Your task to perform on an android device: Open Google Chrome and click the shortcut for Amazon.com Image 0: 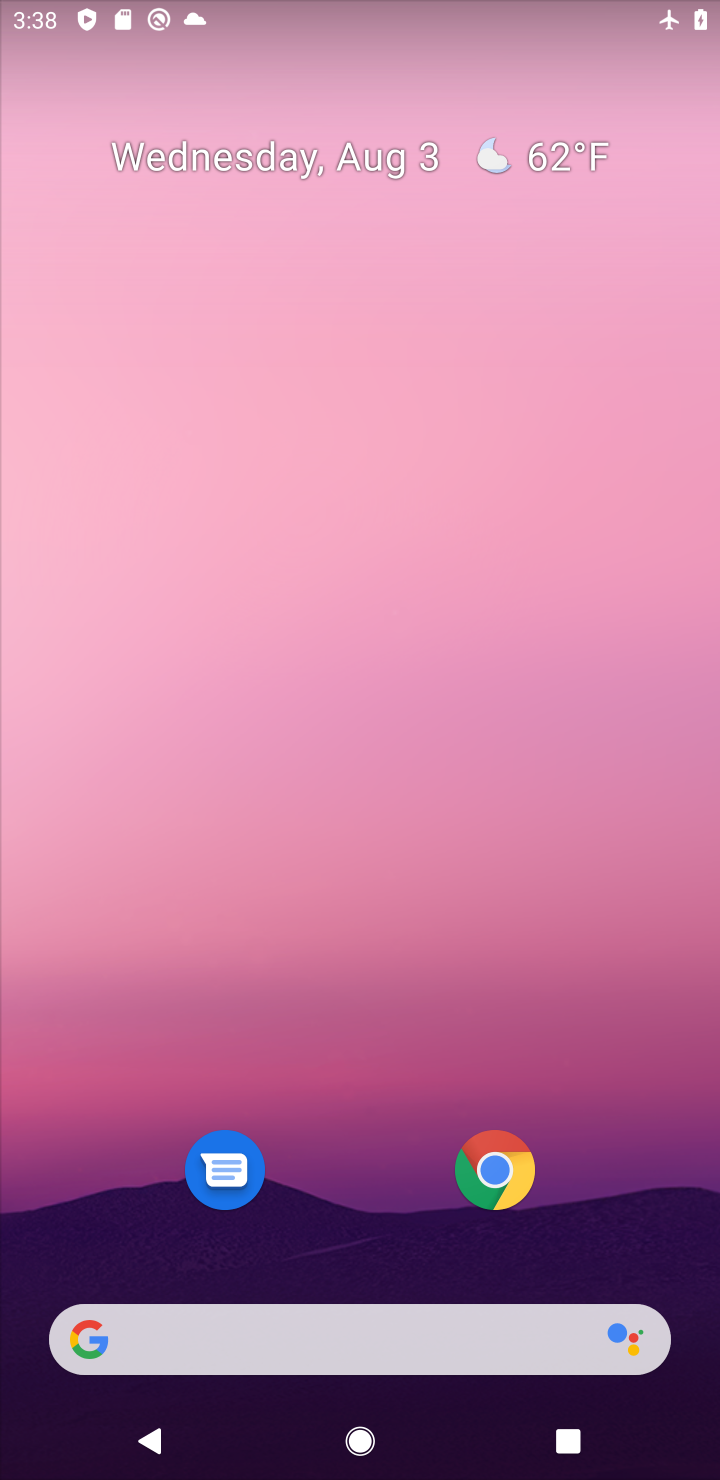
Step 0: click (495, 1176)
Your task to perform on an android device: Open Google Chrome and click the shortcut for Amazon.com Image 1: 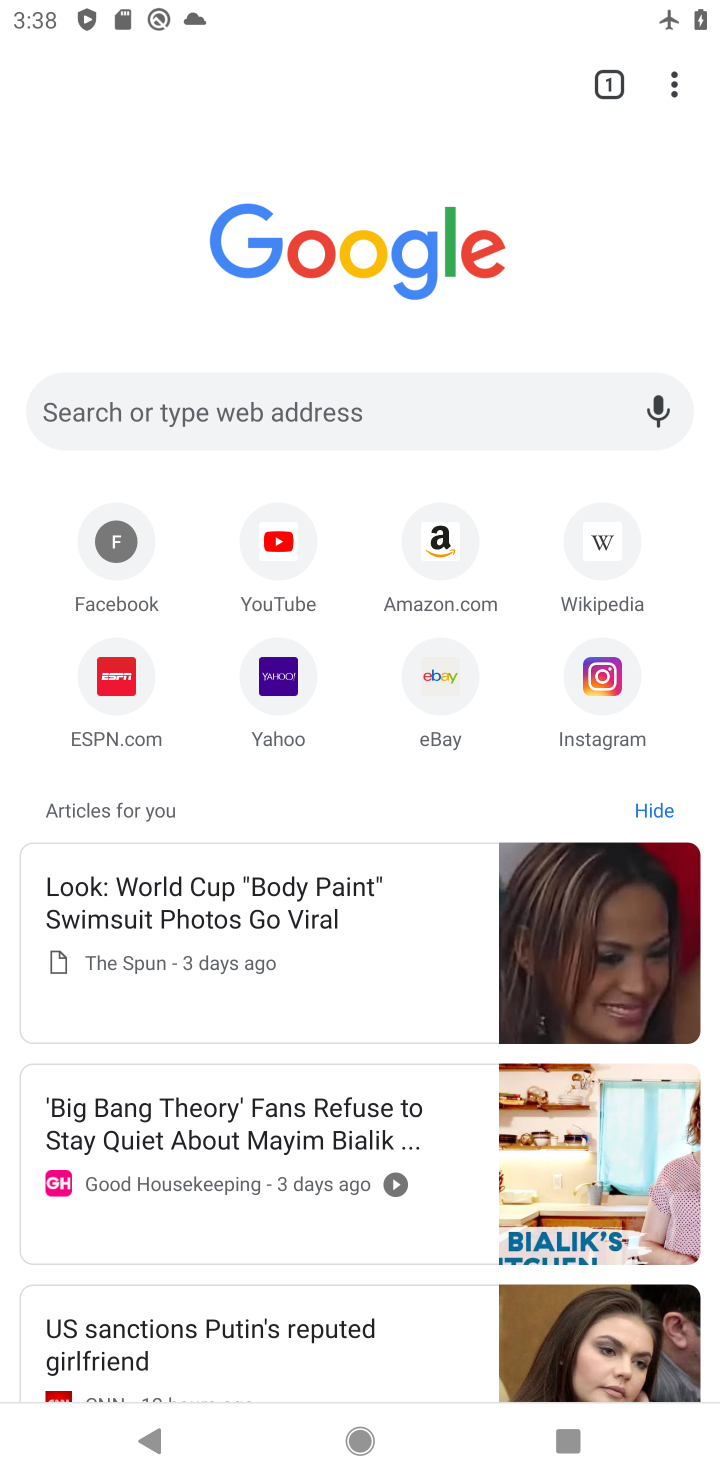
Step 1: click (448, 574)
Your task to perform on an android device: Open Google Chrome and click the shortcut for Amazon.com Image 2: 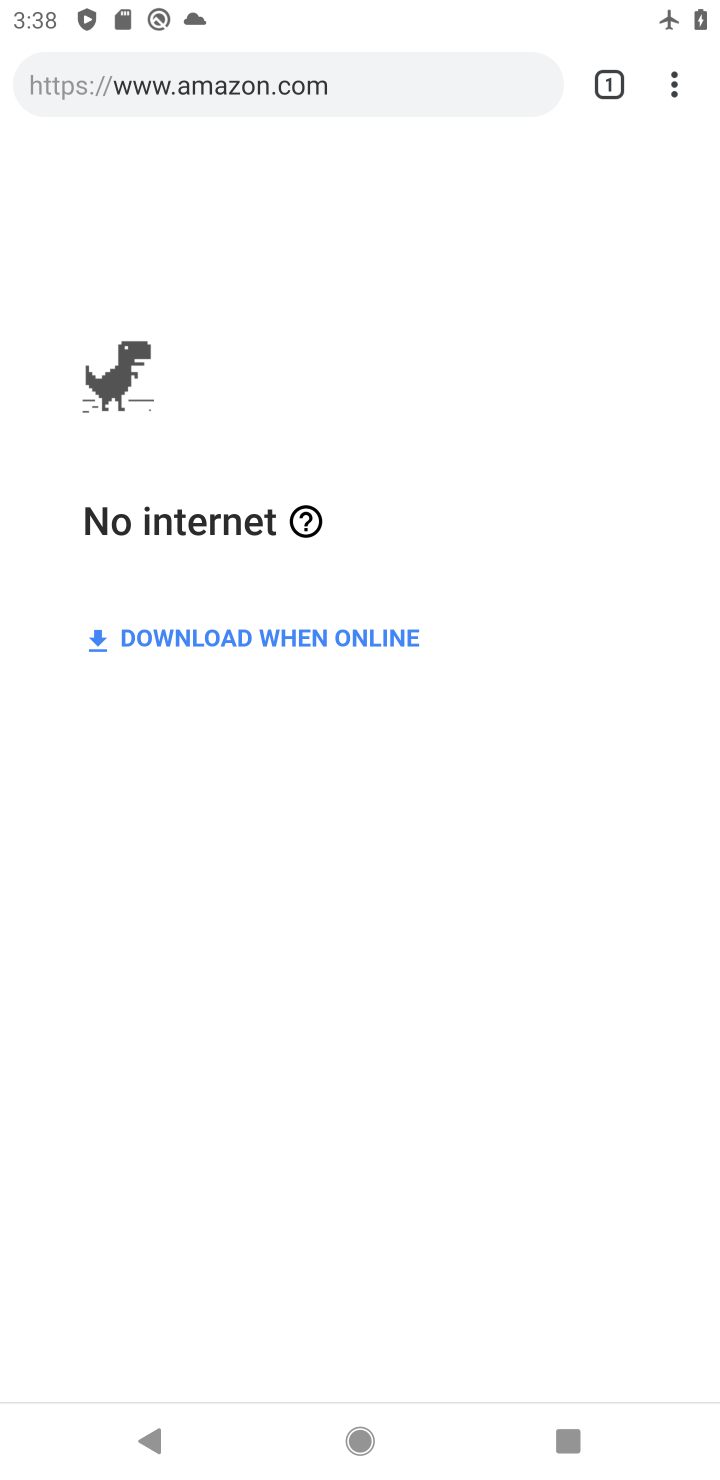
Step 2: press back button
Your task to perform on an android device: Open Google Chrome and click the shortcut for Amazon.com Image 3: 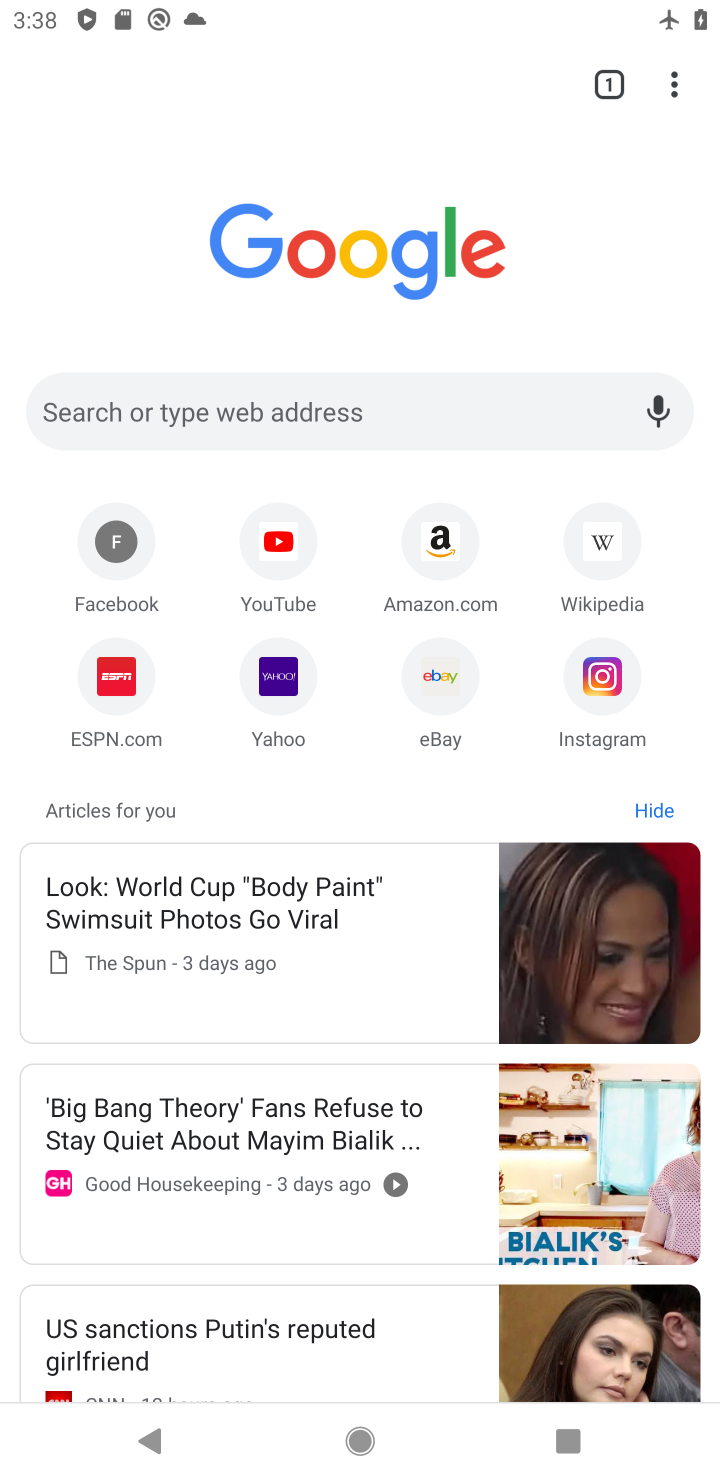
Step 3: press back button
Your task to perform on an android device: Open Google Chrome and click the shortcut for Amazon.com Image 4: 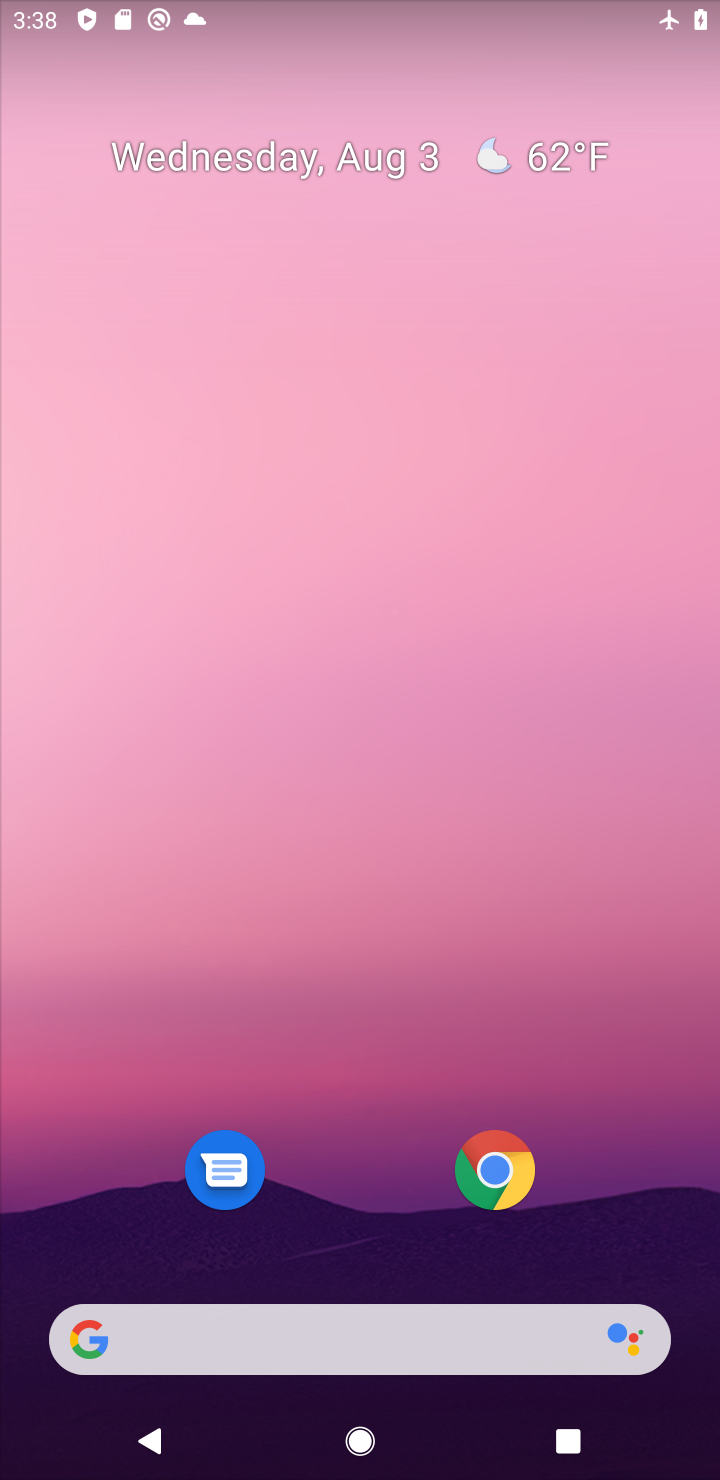
Step 4: press back button
Your task to perform on an android device: Open Google Chrome and click the shortcut for Amazon.com Image 5: 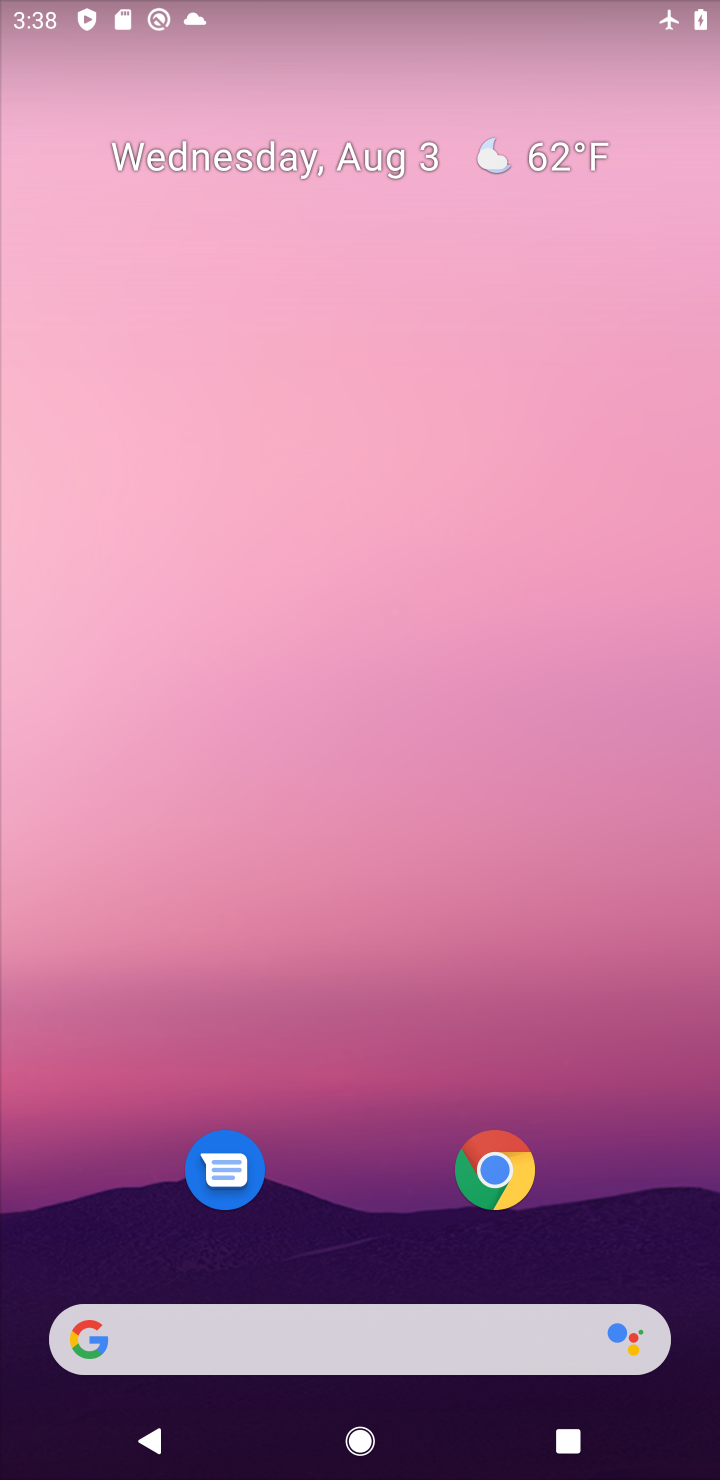
Step 5: drag from (348, 1245) to (331, 383)
Your task to perform on an android device: Open Google Chrome and click the shortcut for Amazon.com Image 6: 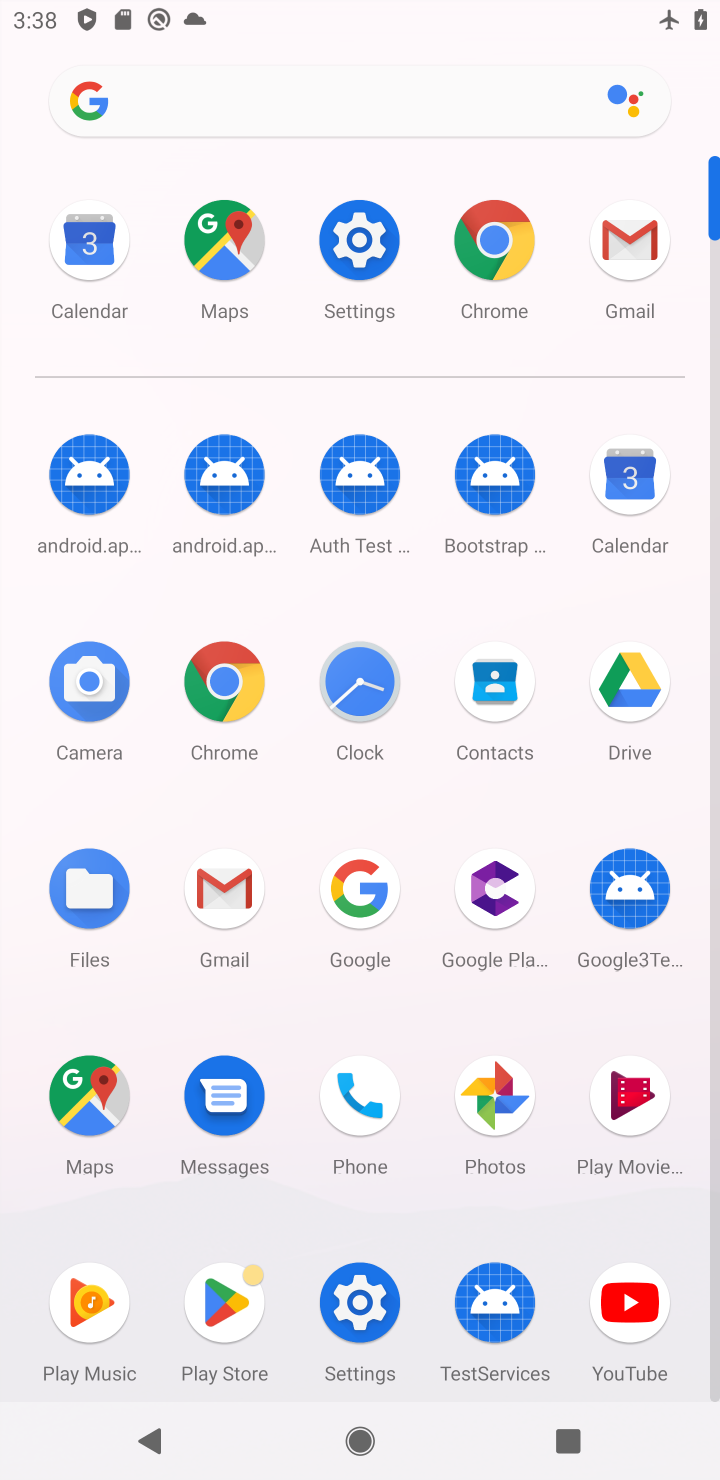
Step 6: click (349, 246)
Your task to perform on an android device: Open Google Chrome and click the shortcut for Amazon.com Image 7: 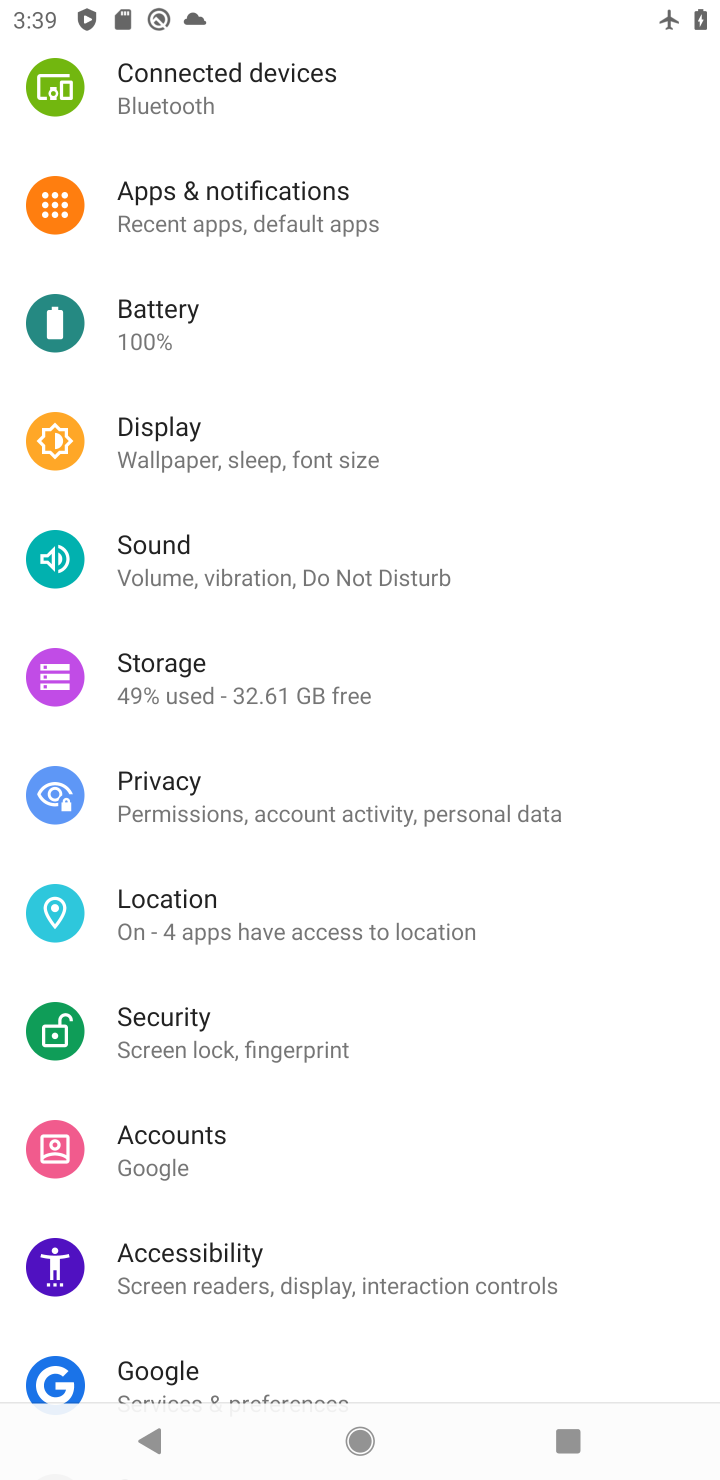
Step 7: press back button
Your task to perform on an android device: Open Google Chrome and click the shortcut for Amazon.com Image 8: 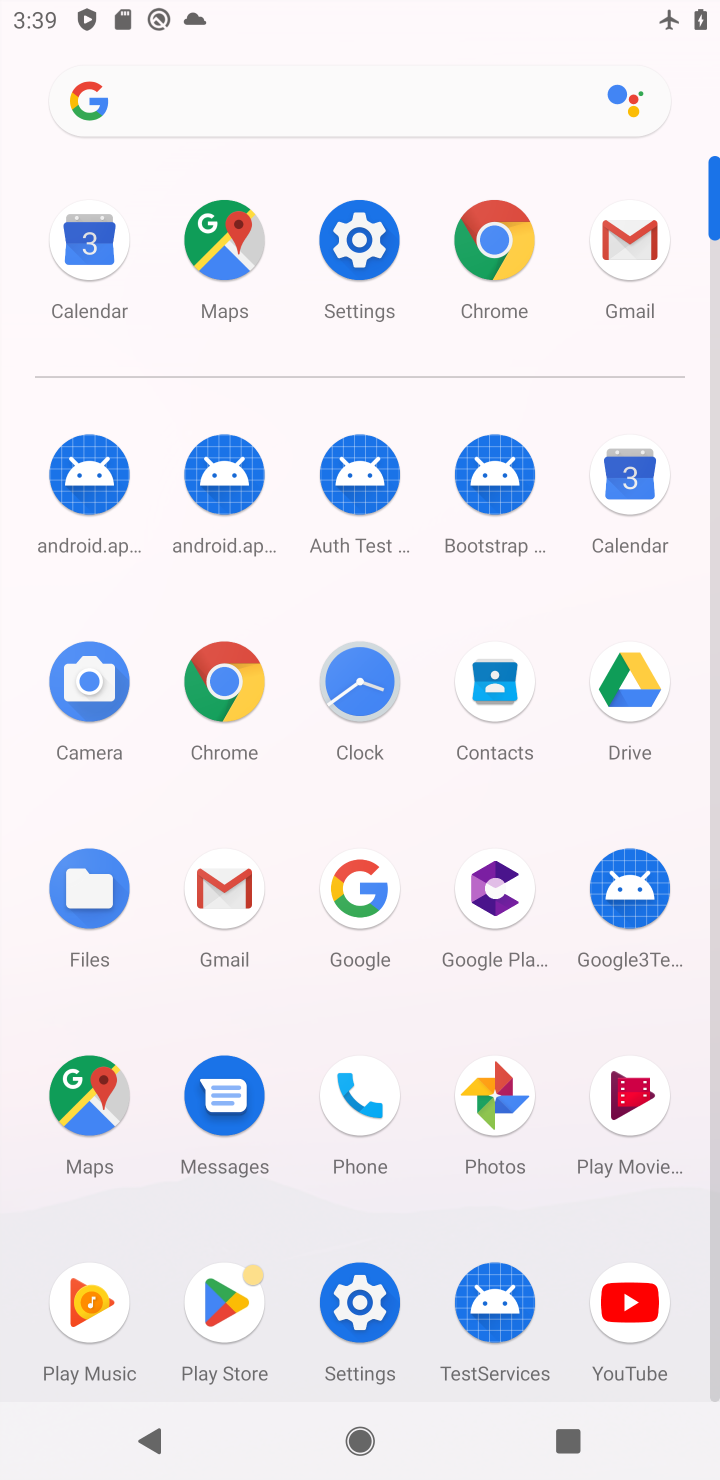
Step 8: click (485, 246)
Your task to perform on an android device: Open Google Chrome and click the shortcut for Amazon.com Image 9: 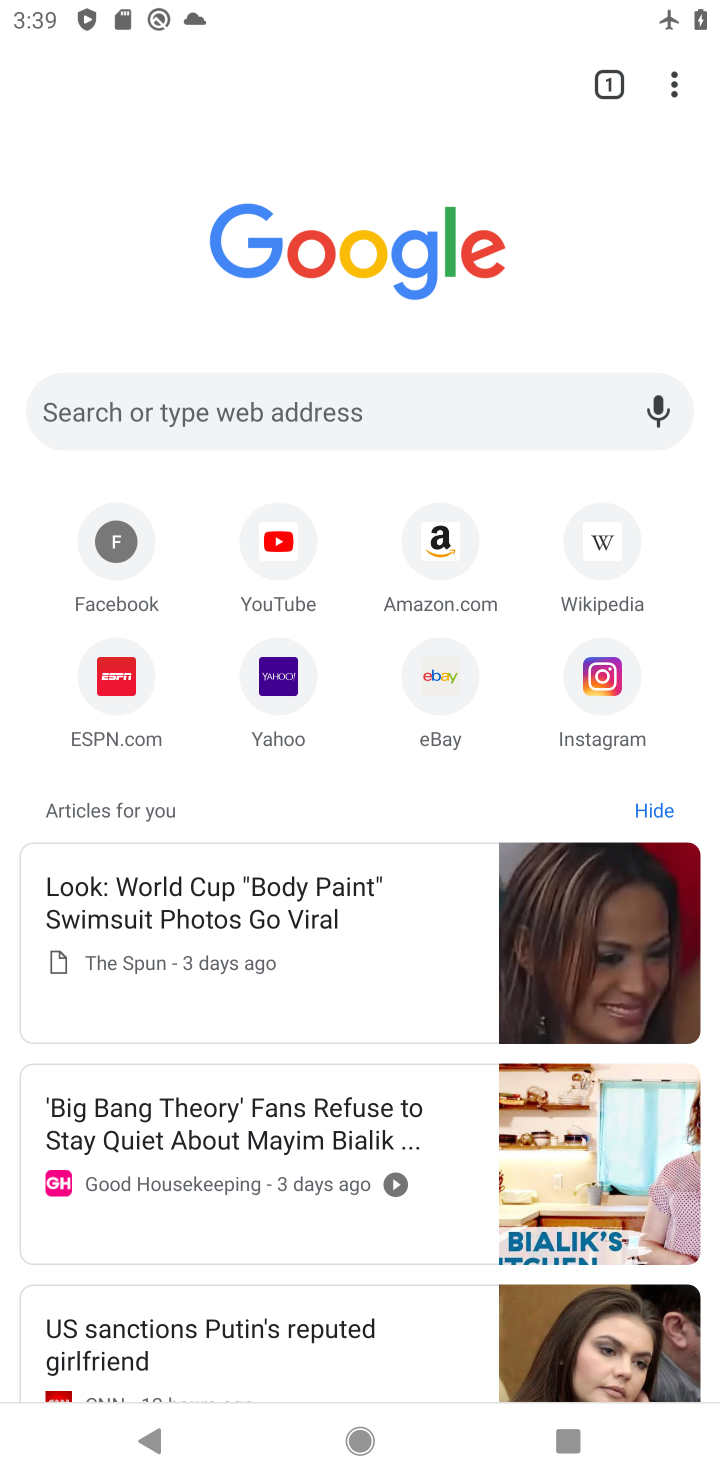
Step 9: click (435, 530)
Your task to perform on an android device: Open Google Chrome and click the shortcut for Amazon.com Image 10: 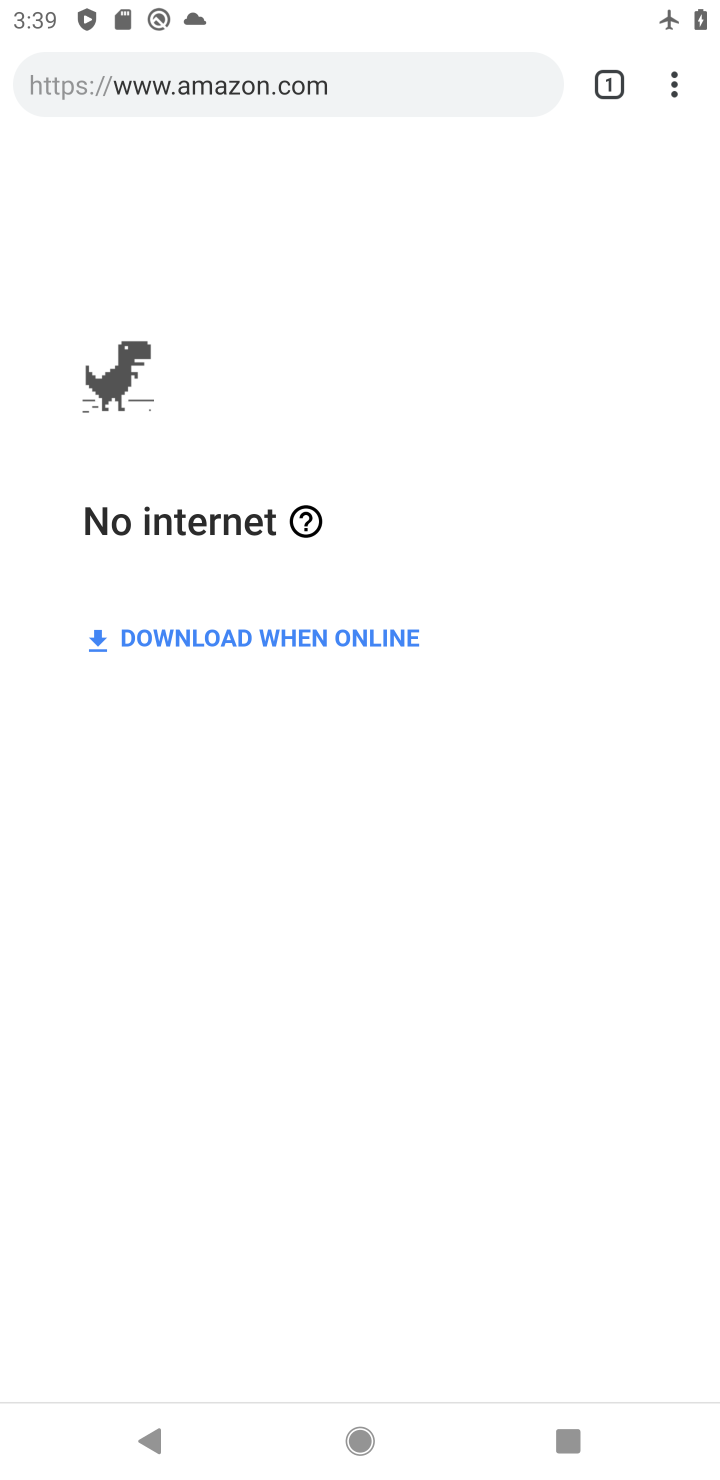
Step 10: press back button
Your task to perform on an android device: Open Google Chrome and click the shortcut for Amazon.com Image 11: 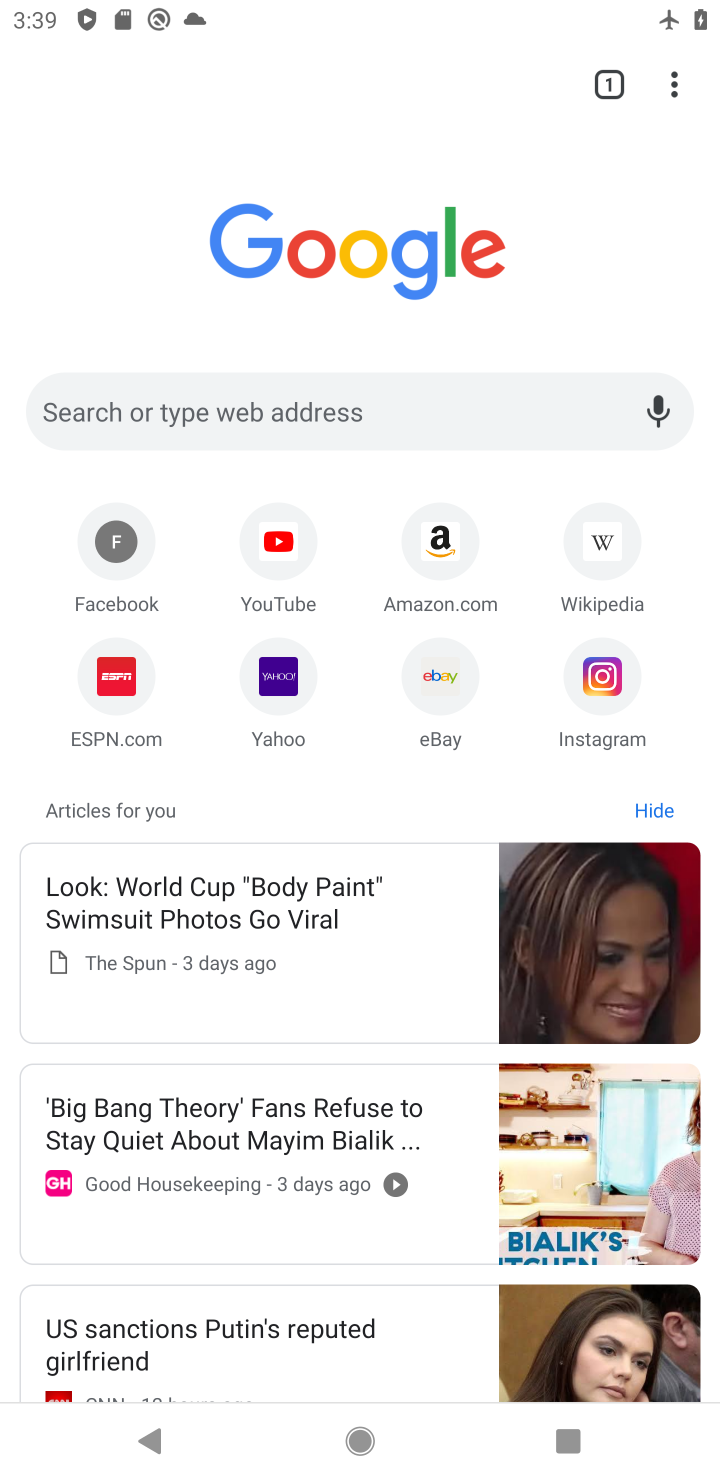
Step 11: press back button
Your task to perform on an android device: Open Google Chrome and click the shortcut for Amazon.com Image 12: 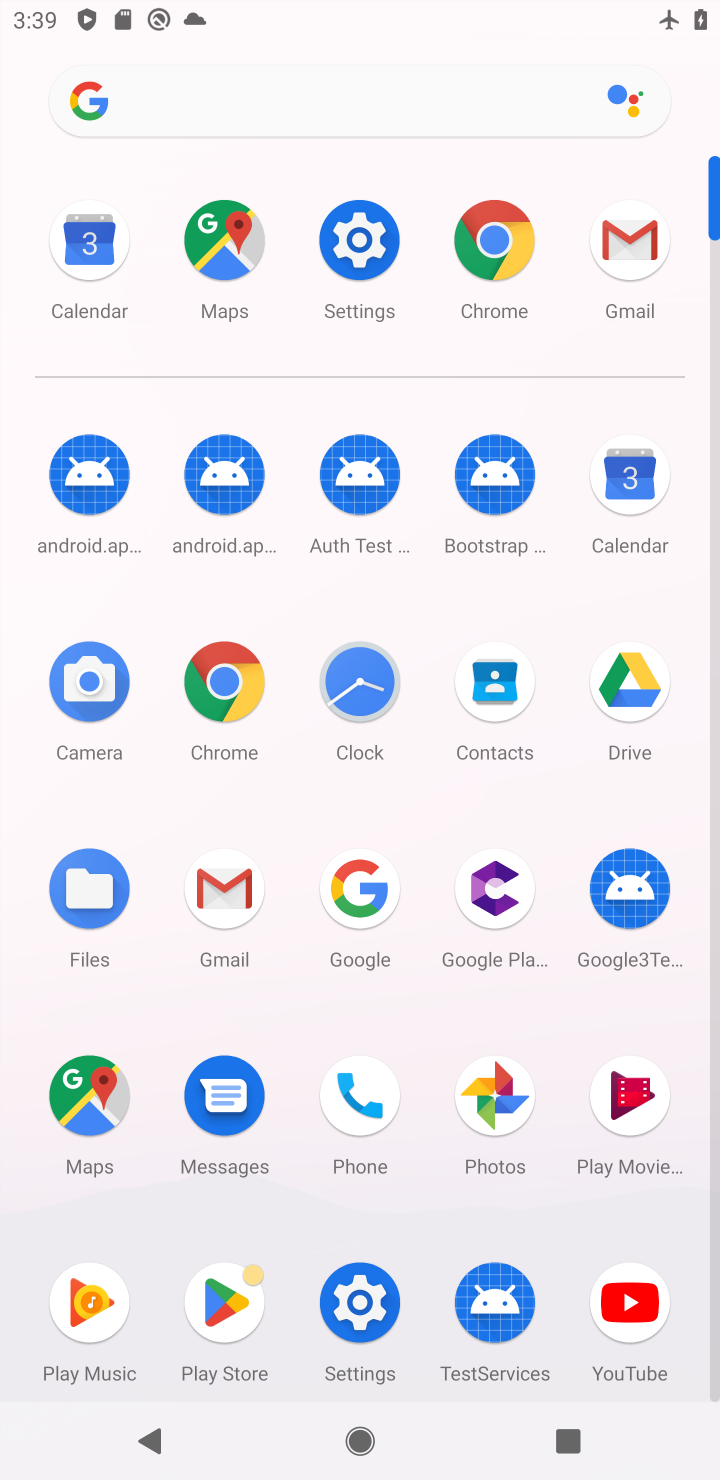
Step 12: click (352, 241)
Your task to perform on an android device: Open Google Chrome and click the shortcut for Amazon.com Image 13: 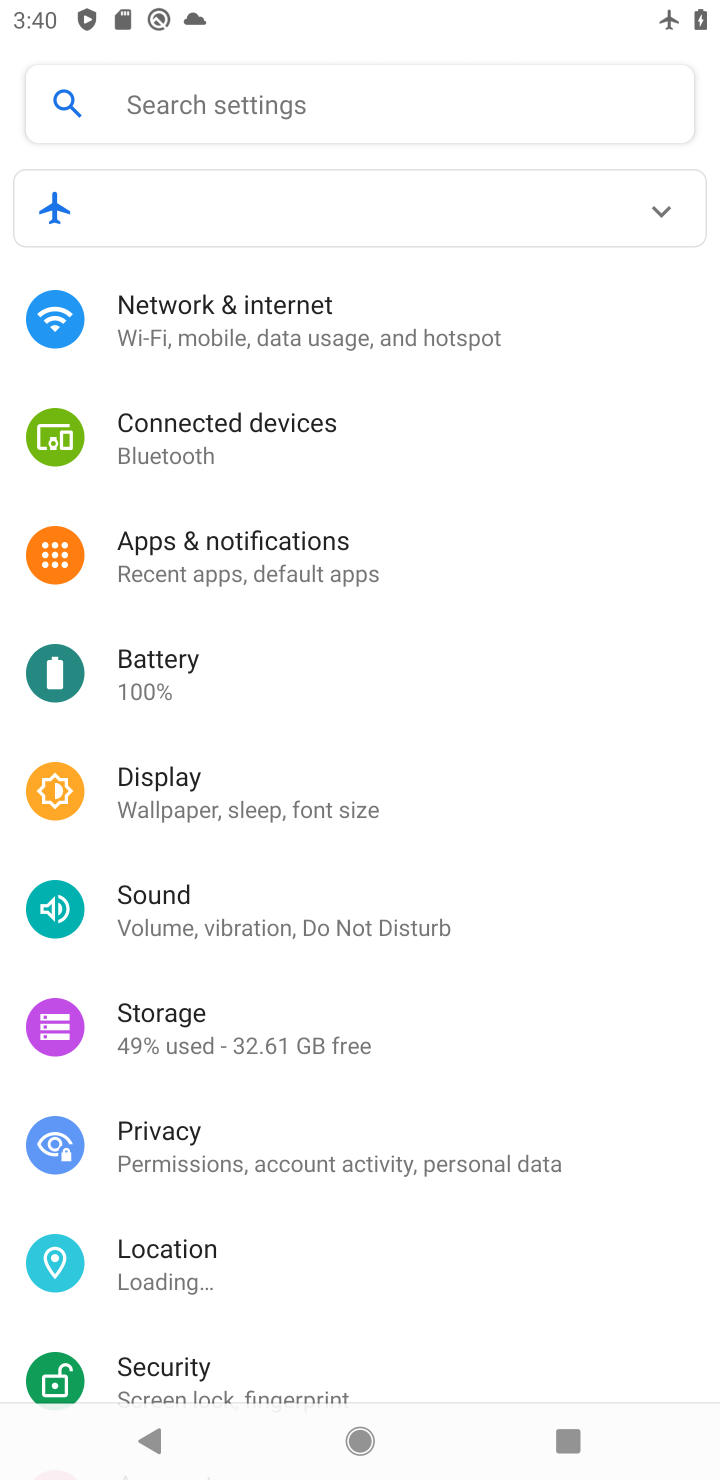
Step 13: click (664, 205)
Your task to perform on an android device: Open Google Chrome and click the shortcut for Amazon.com Image 14: 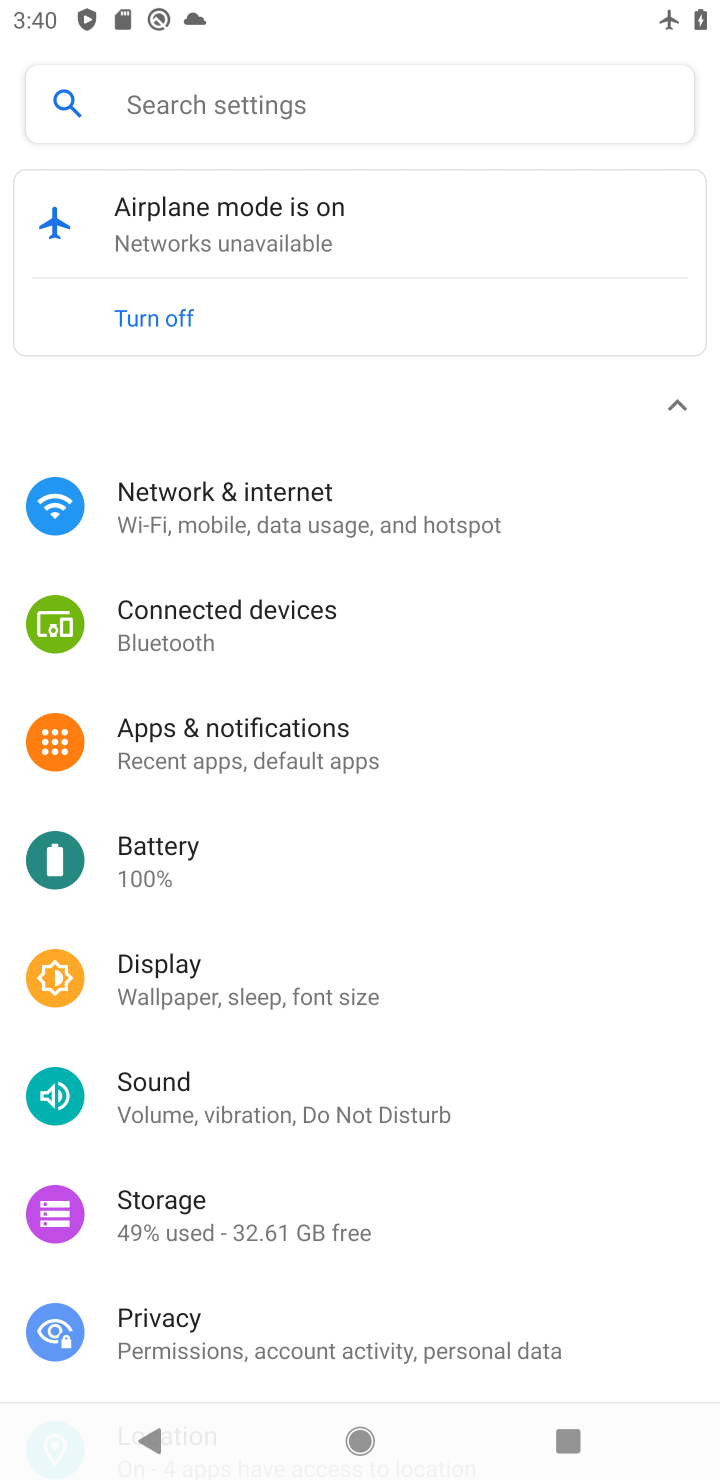
Step 14: click (184, 316)
Your task to perform on an android device: Open Google Chrome and click the shortcut for Amazon.com Image 15: 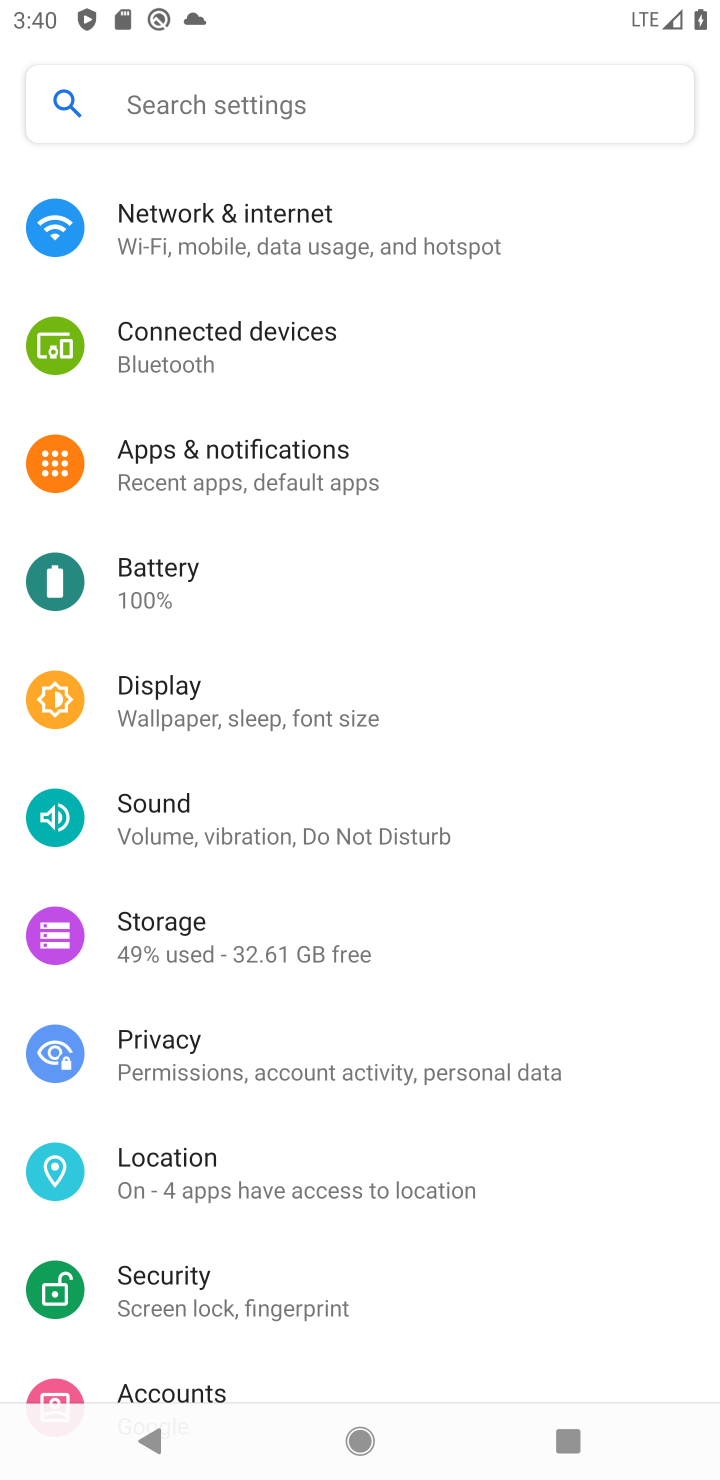
Step 15: press back button
Your task to perform on an android device: Open Google Chrome and click the shortcut for Amazon.com Image 16: 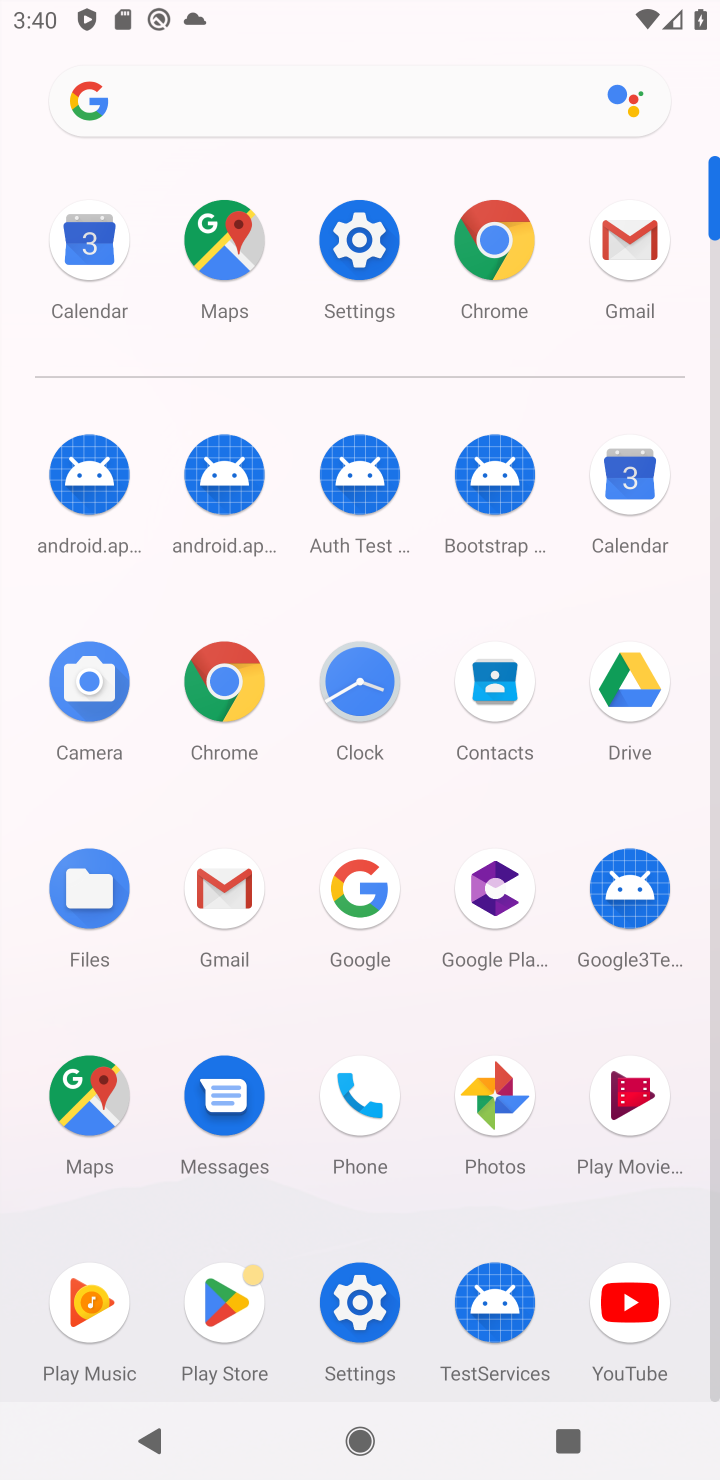
Step 16: click (461, 238)
Your task to perform on an android device: Open Google Chrome and click the shortcut for Amazon.com Image 17: 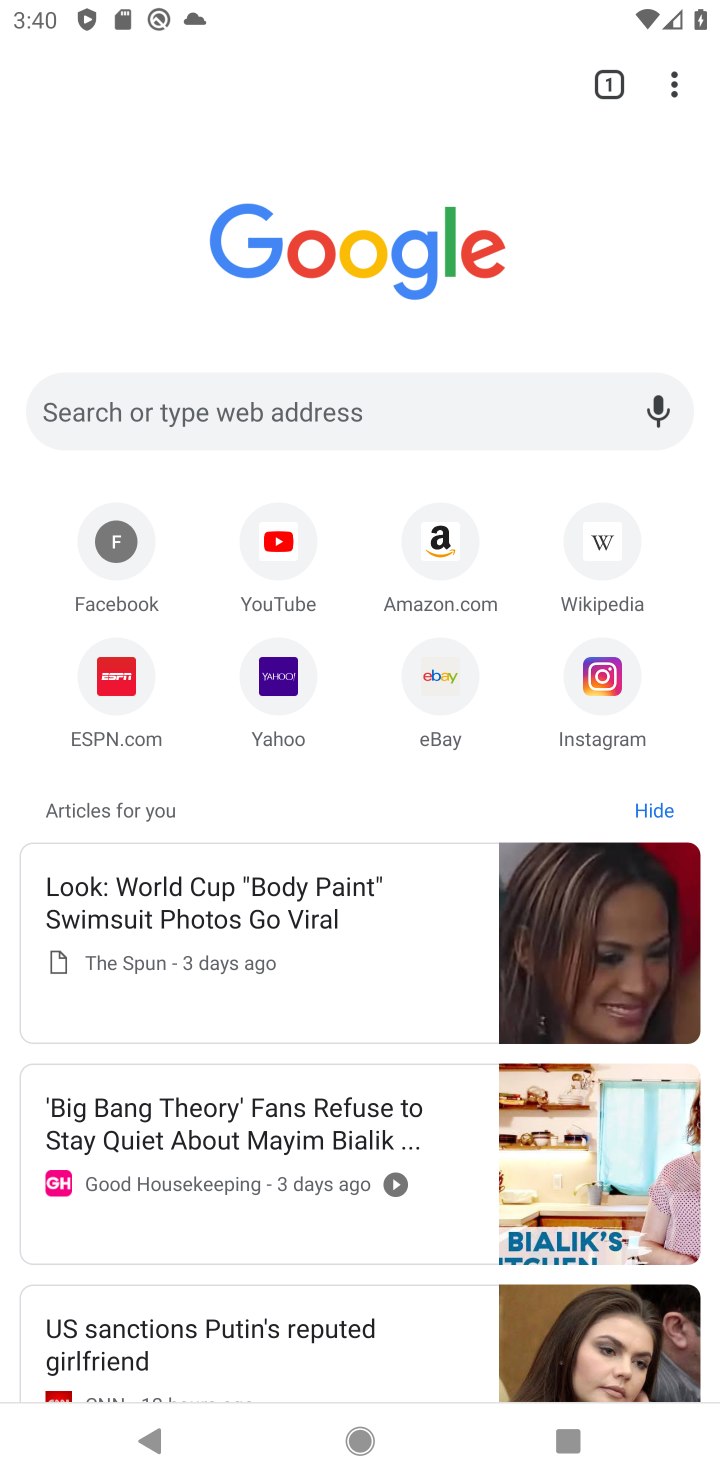
Step 17: click (445, 562)
Your task to perform on an android device: Open Google Chrome and click the shortcut for Amazon.com Image 18: 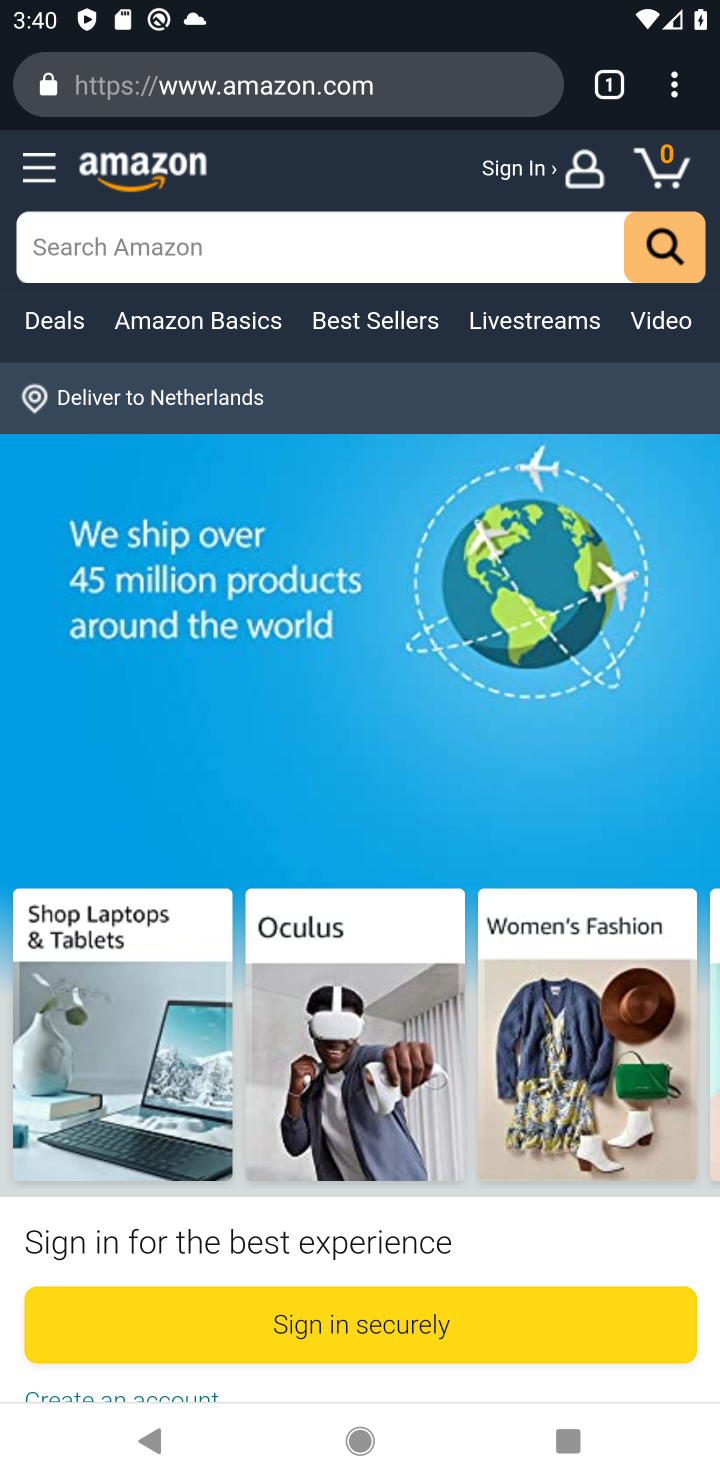
Step 18: task complete